Your task to perform on an android device: move an email to a new category in the gmail app Image 0: 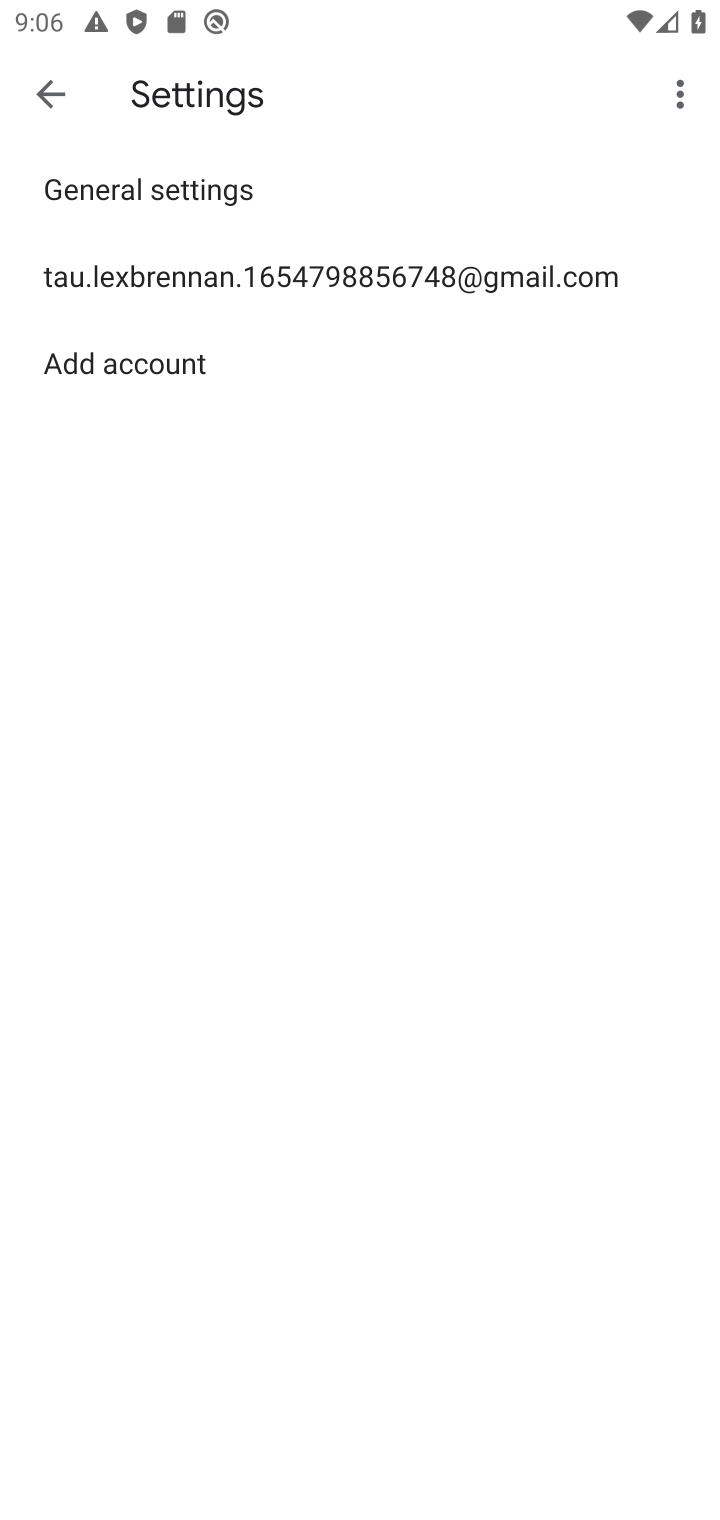
Step 0: press home button
Your task to perform on an android device: move an email to a new category in the gmail app Image 1: 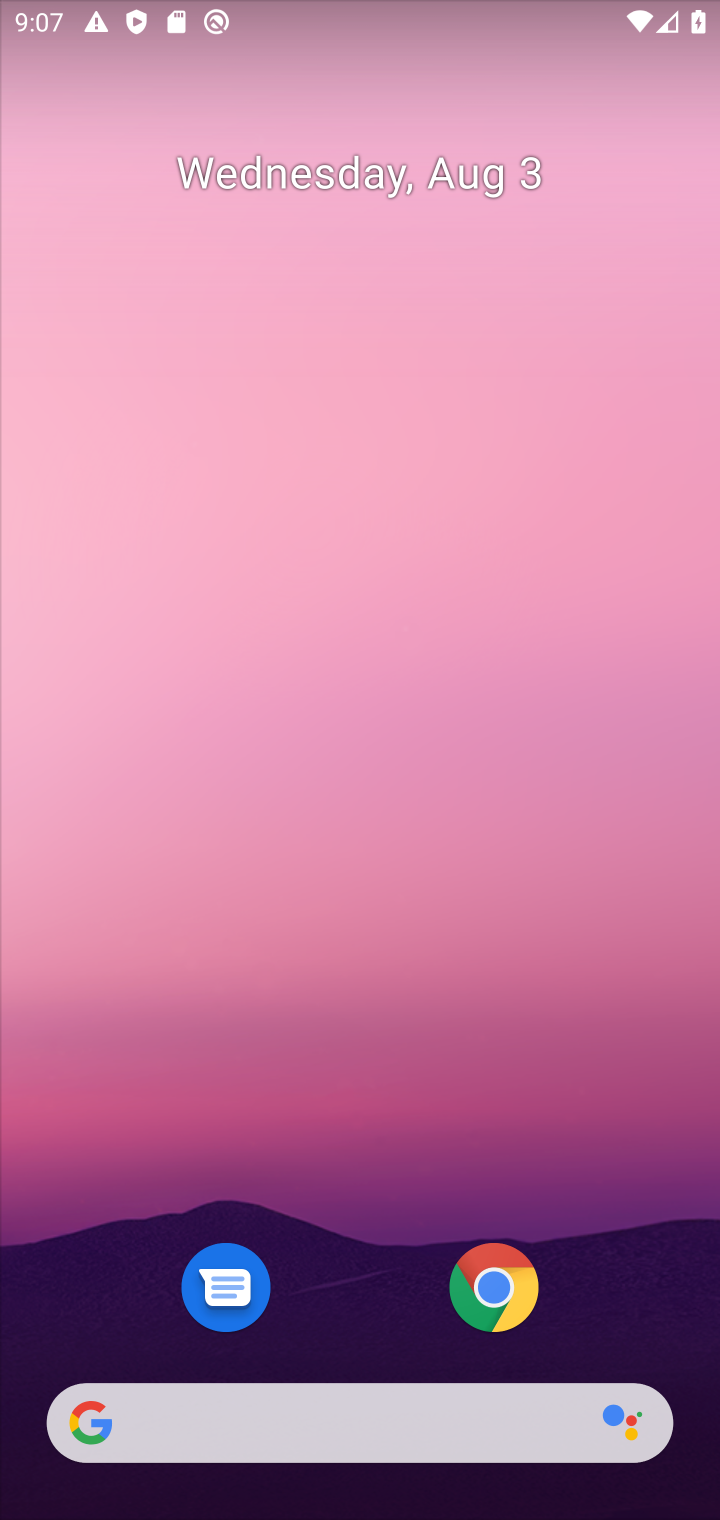
Step 1: drag from (344, 1289) to (226, 43)
Your task to perform on an android device: move an email to a new category in the gmail app Image 2: 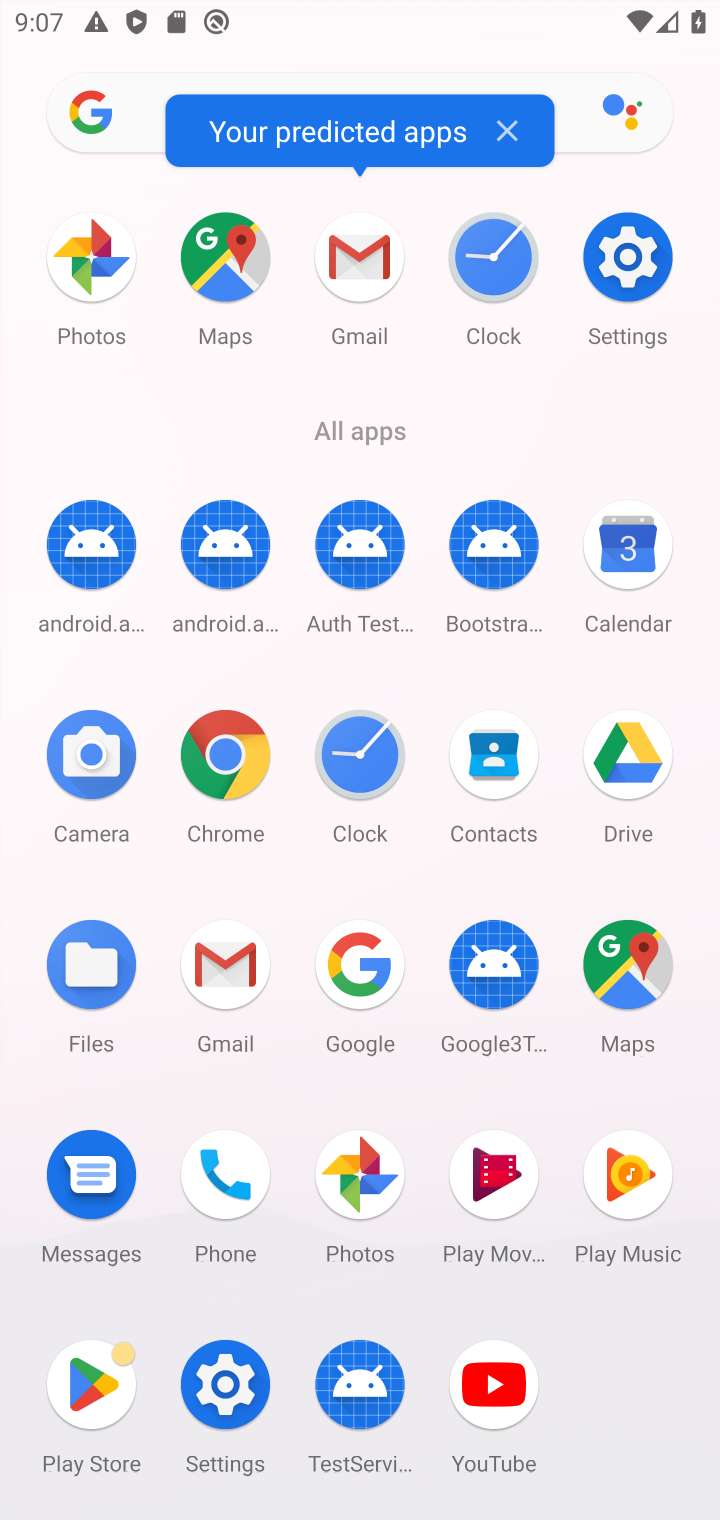
Step 2: click (217, 964)
Your task to perform on an android device: move an email to a new category in the gmail app Image 3: 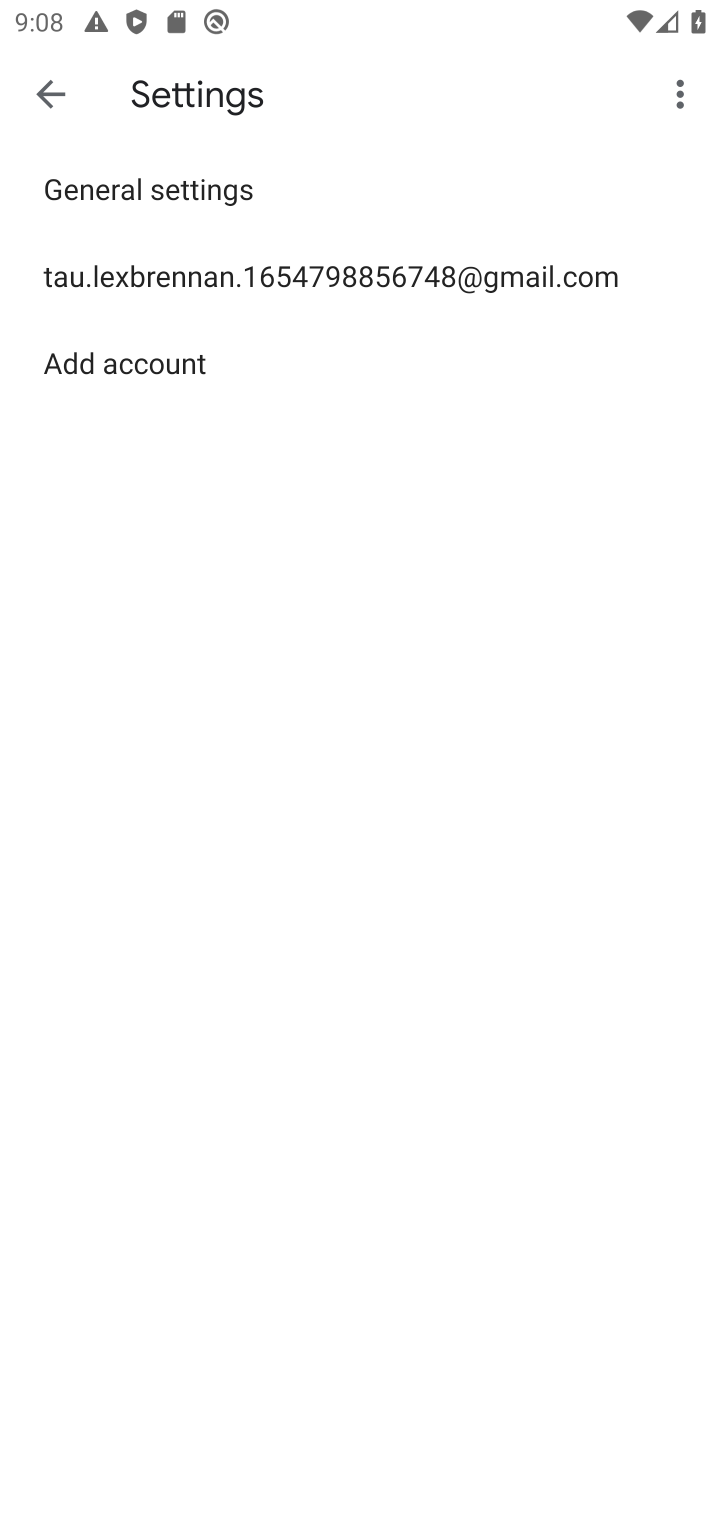
Step 3: click (45, 94)
Your task to perform on an android device: move an email to a new category in the gmail app Image 4: 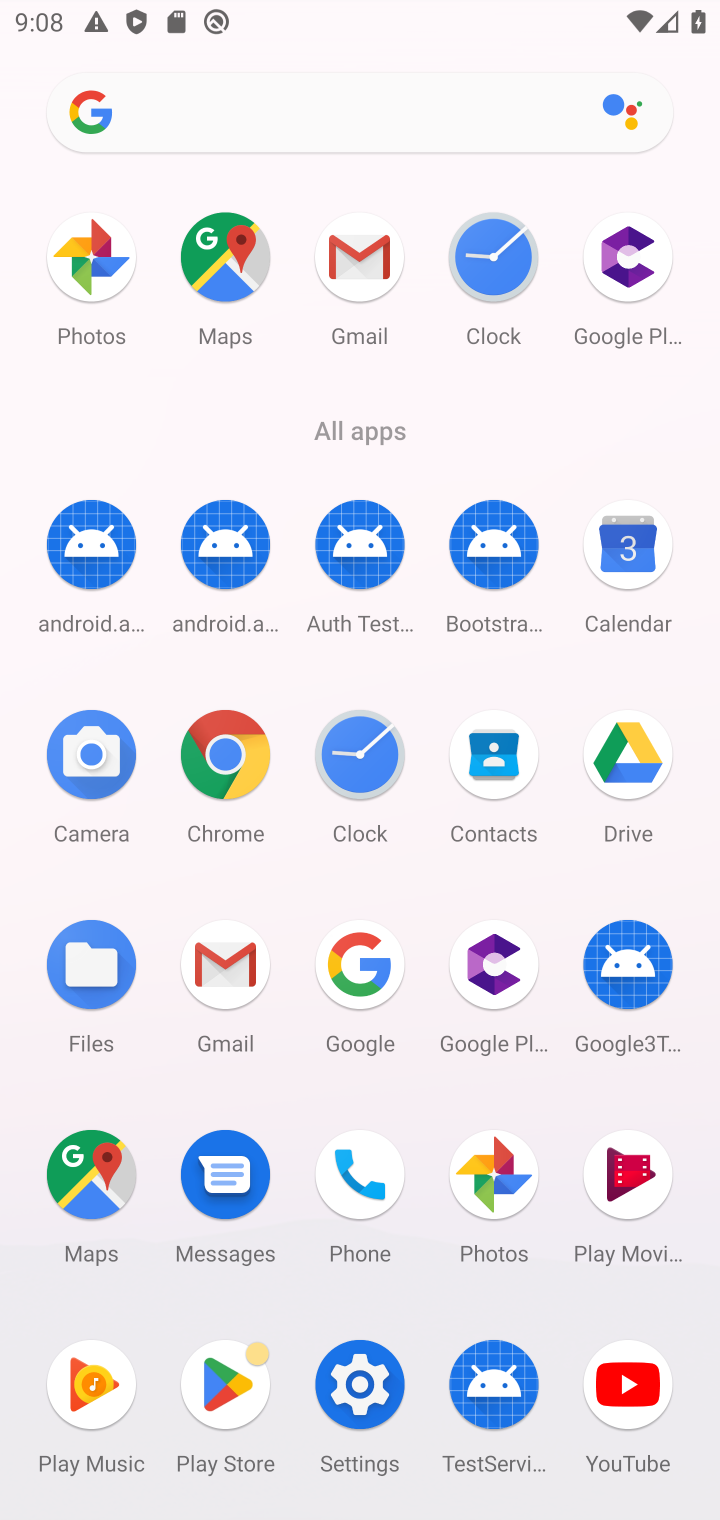
Step 4: click (233, 975)
Your task to perform on an android device: move an email to a new category in the gmail app Image 5: 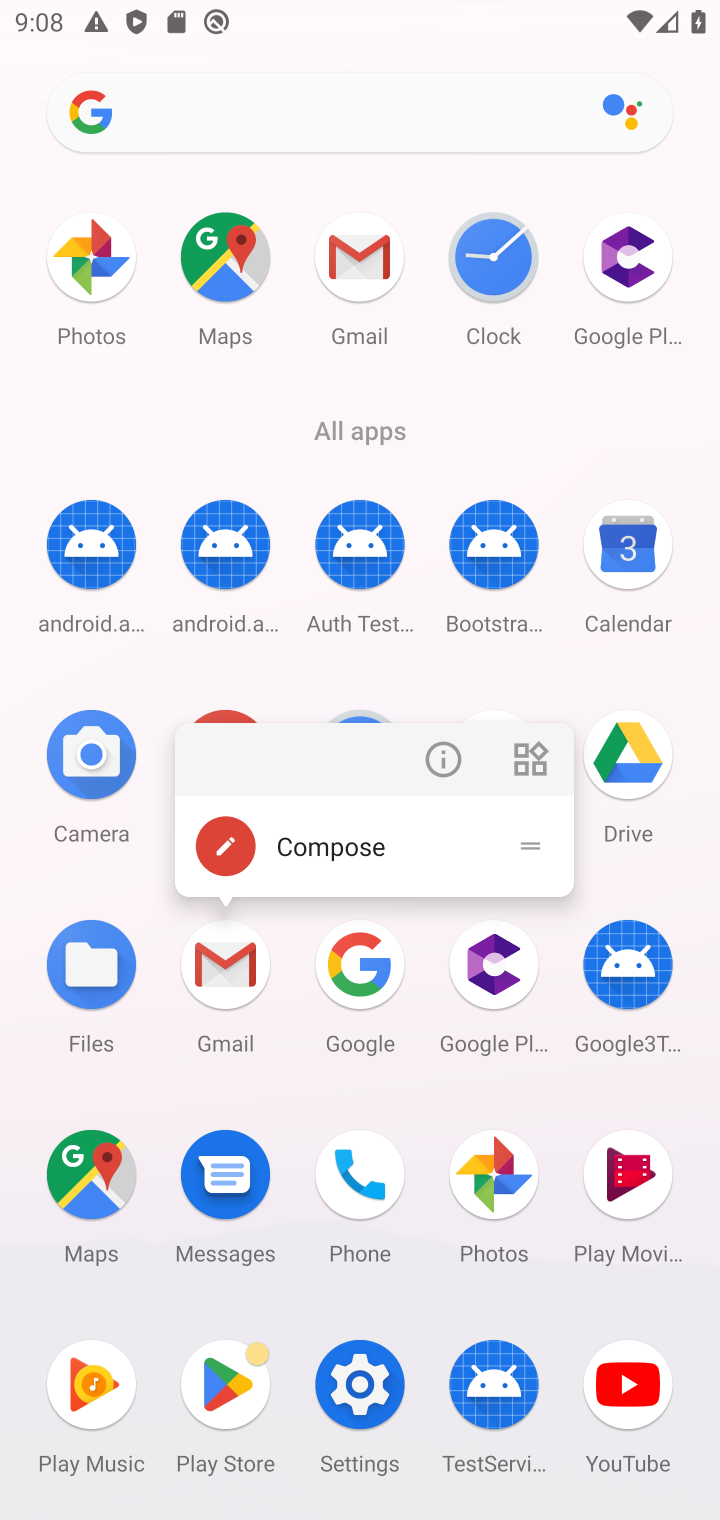
Step 5: click (233, 975)
Your task to perform on an android device: move an email to a new category in the gmail app Image 6: 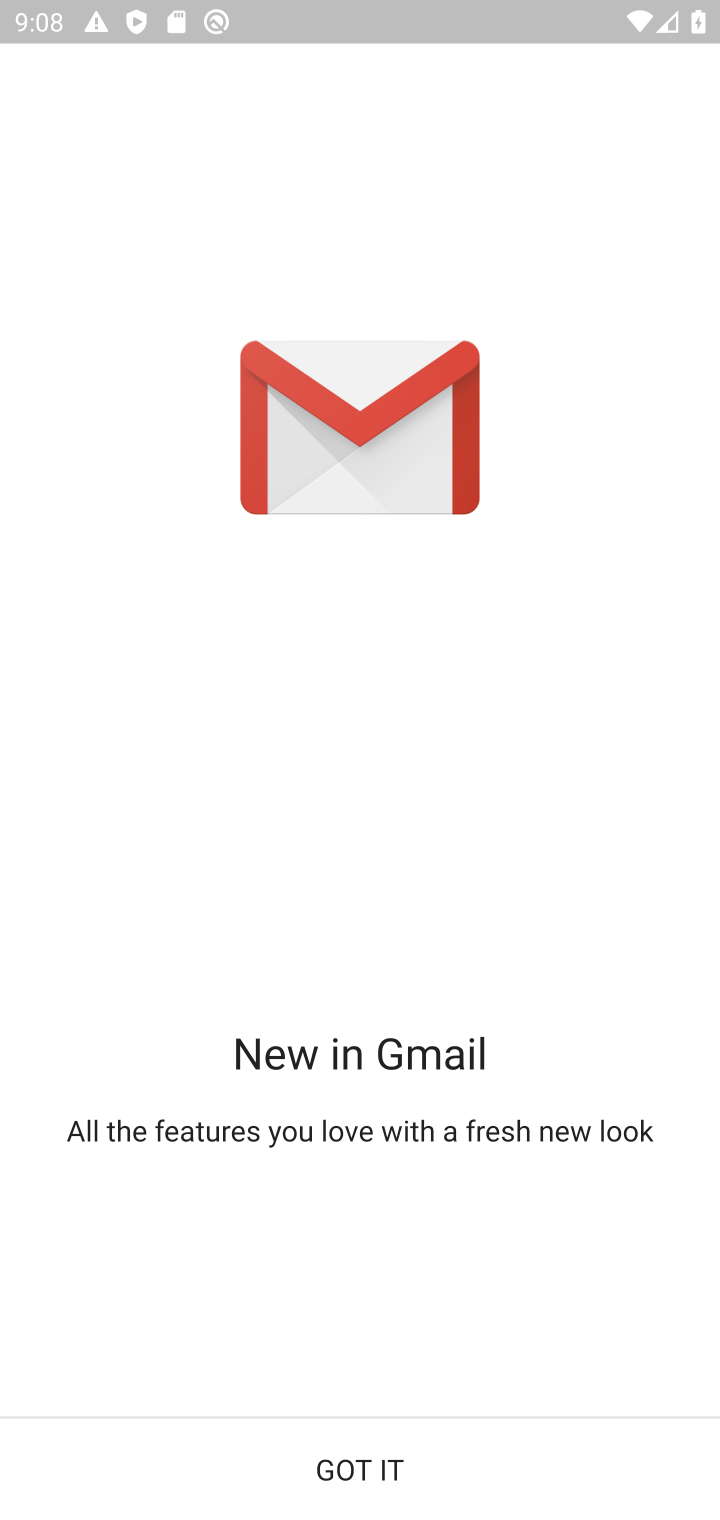
Step 6: click (386, 1445)
Your task to perform on an android device: move an email to a new category in the gmail app Image 7: 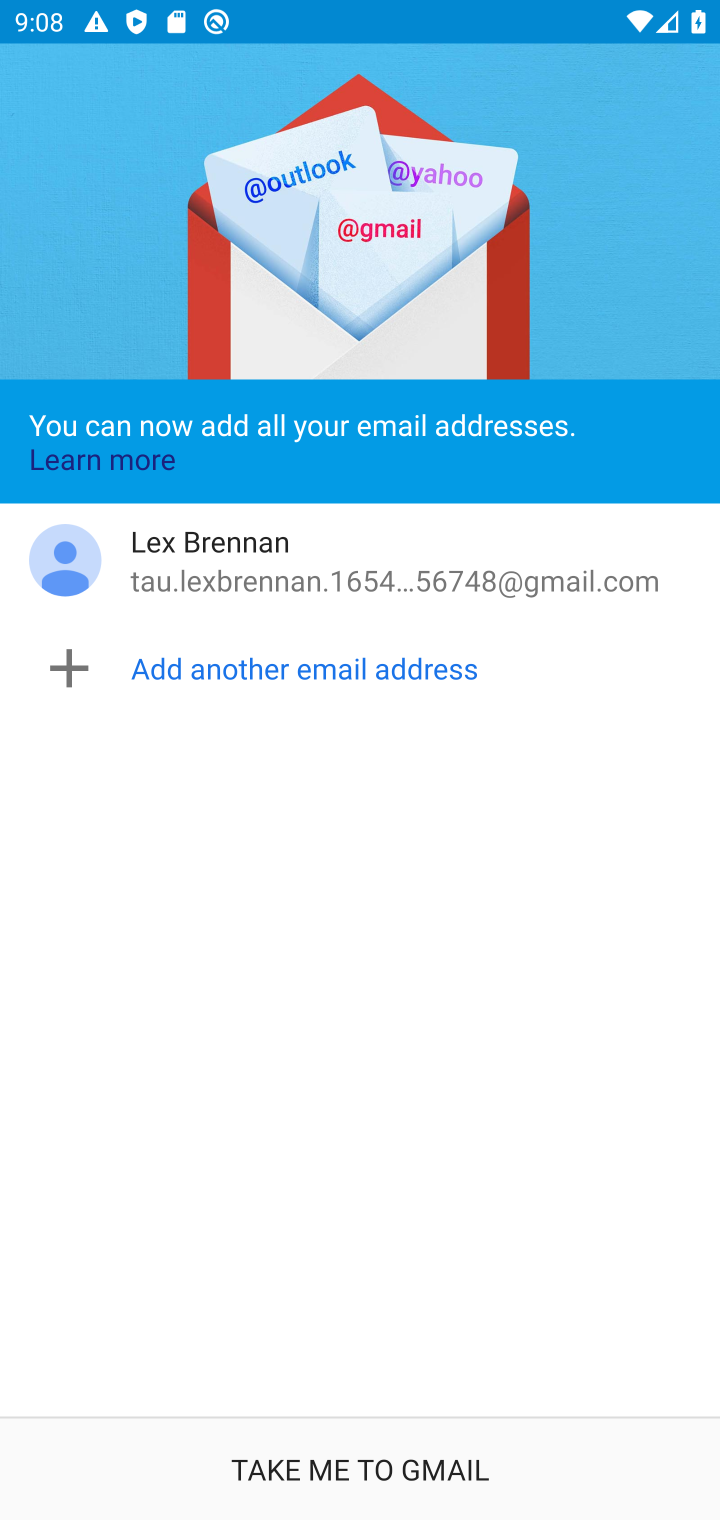
Step 7: click (334, 1451)
Your task to perform on an android device: move an email to a new category in the gmail app Image 8: 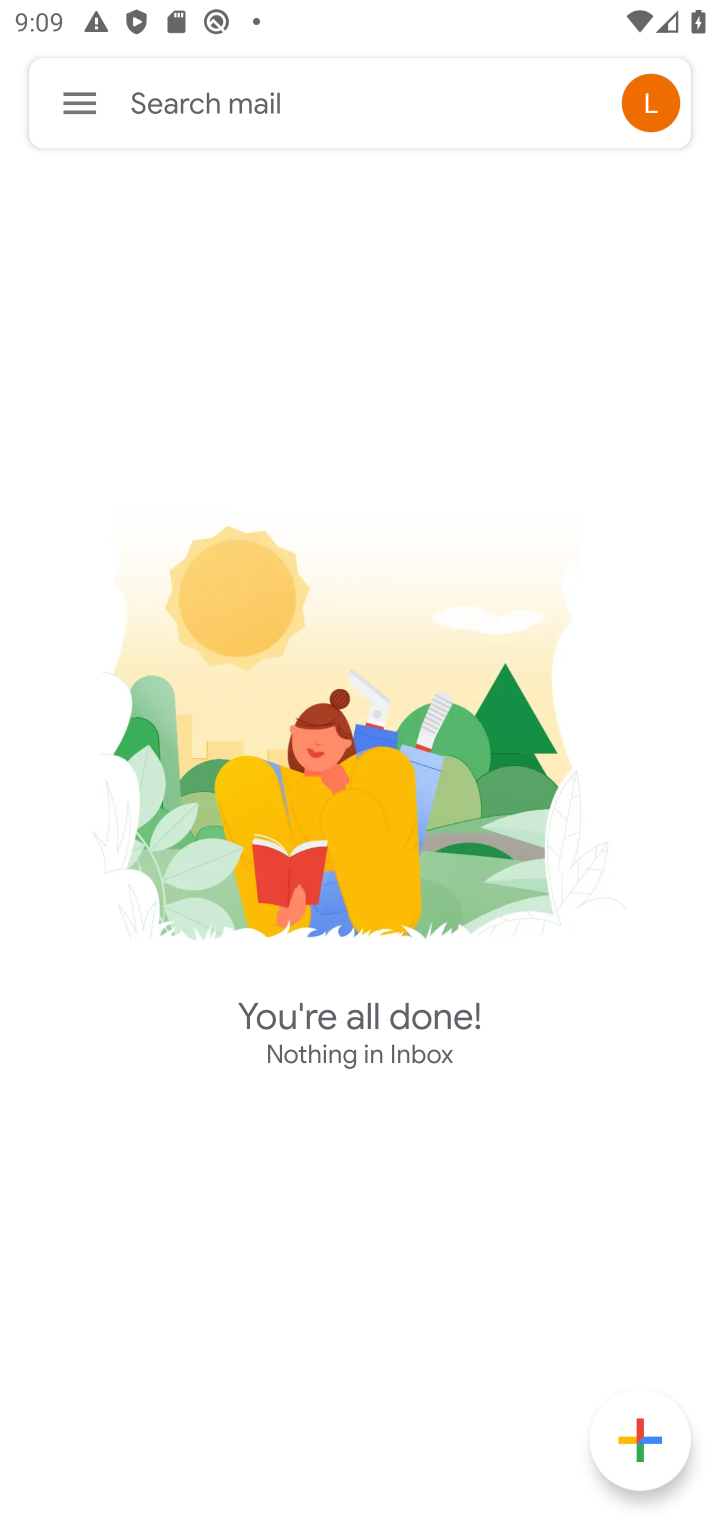
Step 8: task complete